Your task to perform on an android device: turn on improve location accuracy Image 0: 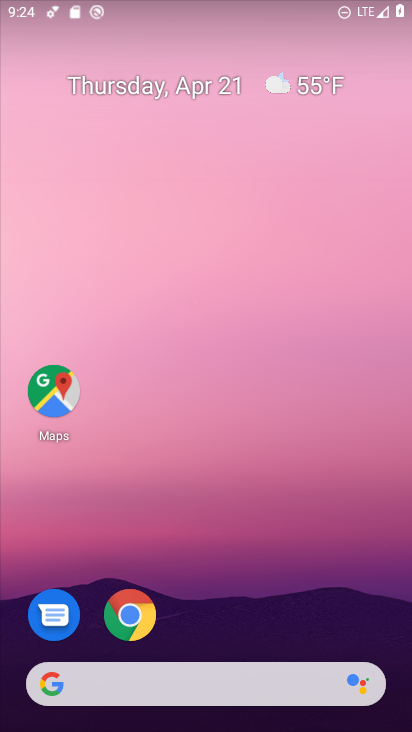
Step 0: drag from (280, 550) to (339, 22)
Your task to perform on an android device: turn on improve location accuracy Image 1: 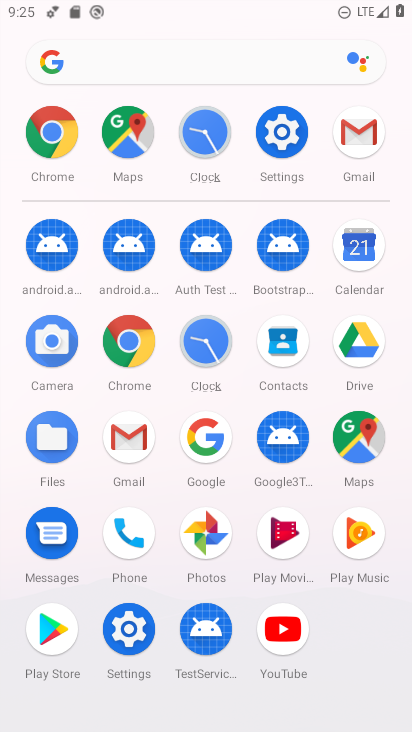
Step 1: click (288, 136)
Your task to perform on an android device: turn on improve location accuracy Image 2: 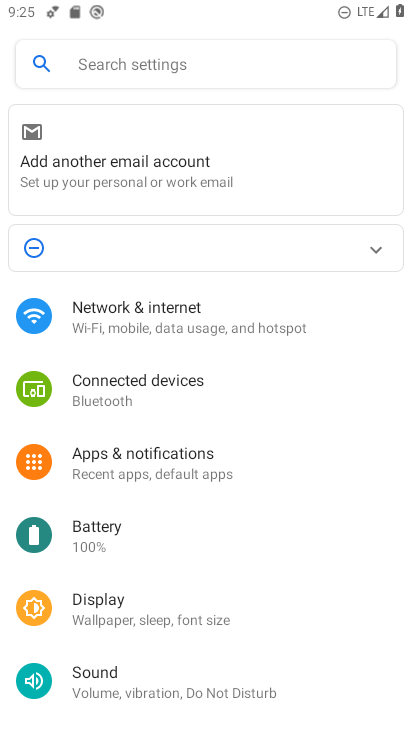
Step 2: drag from (238, 621) to (159, 201)
Your task to perform on an android device: turn on improve location accuracy Image 3: 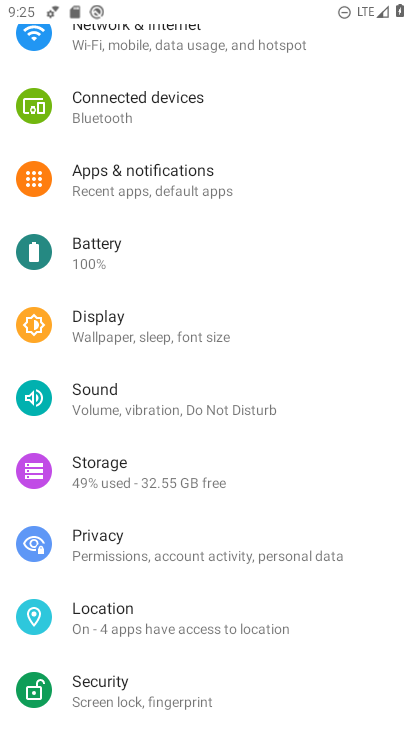
Step 3: drag from (180, 308) to (187, 205)
Your task to perform on an android device: turn on improve location accuracy Image 4: 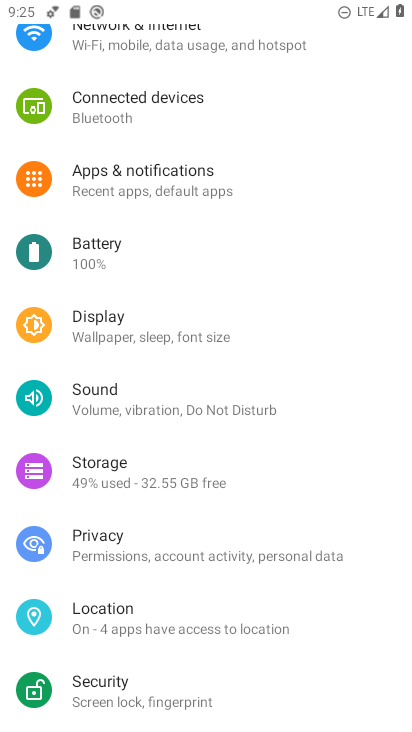
Step 4: drag from (225, 586) to (259, 246)
Your task to perform on an android device: turn on improve location accuracy Image 5: 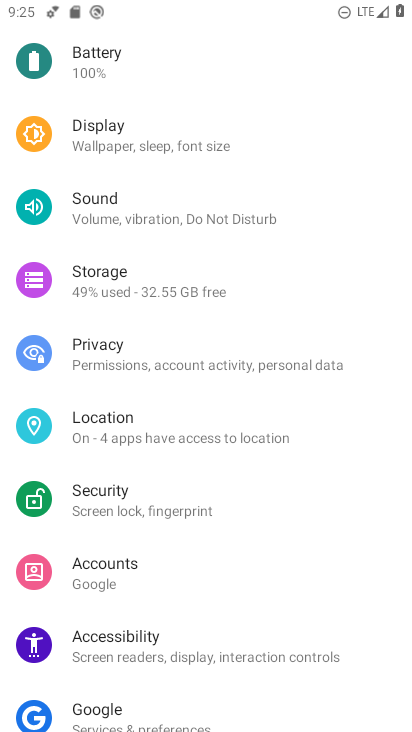
Step 5: click (130, 437)
Your task to perform on an android device: turn on improve location accuracy Image 6: 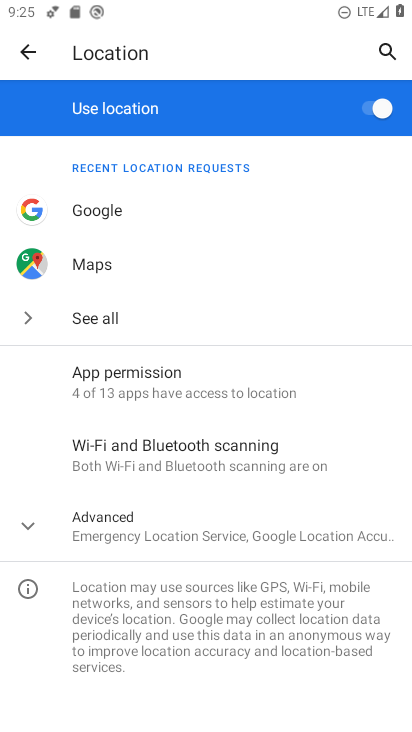
Step 6: drag from (246, 297) to (266, 577)
Your task to perform on an android device: turn on improve location accuracy Image 7: 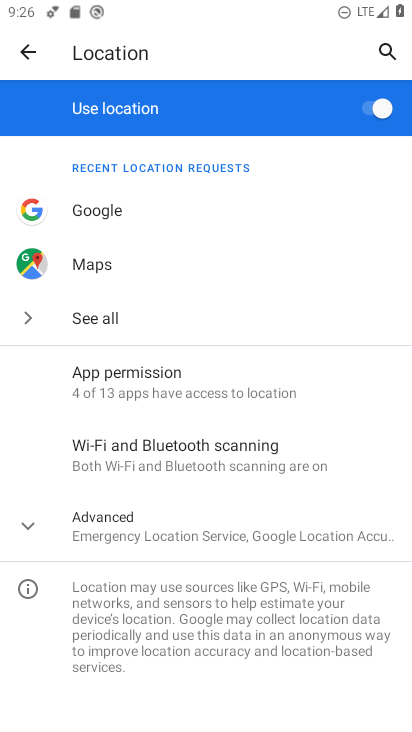
Step 7: drag from (278, 321) to (247, 629)
Your task to perform on an android device: turn on improve location accuracy Image 8: 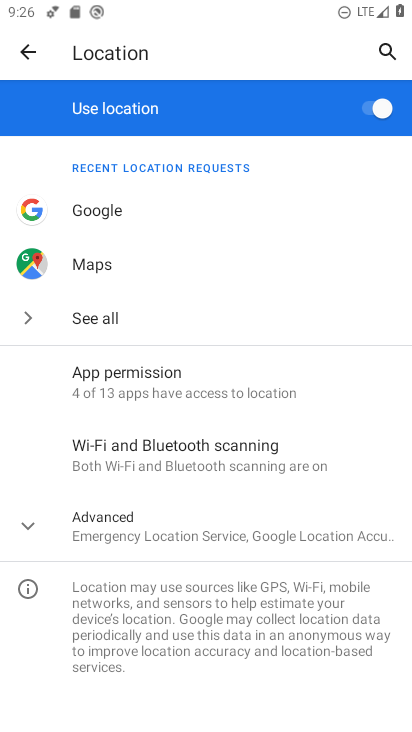
Step 8: click (189, 537)
Your task to perform on an android device: turn on improve location accuracy Image 9: 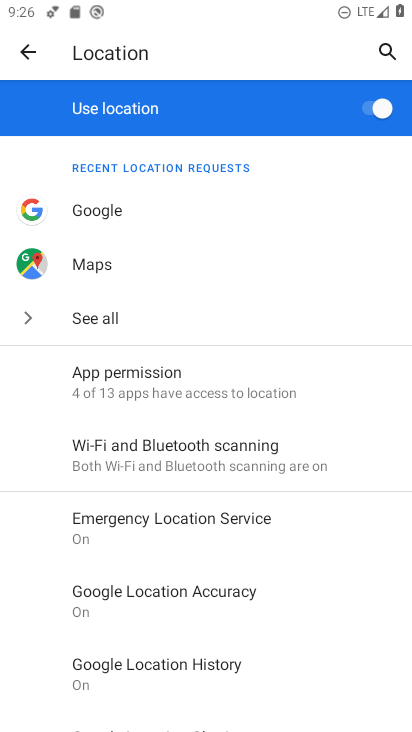
Step 9: drag from (235, 639) to (249, 249)
Your task to perform on an android device: turn on improve location accuracy Image 10: 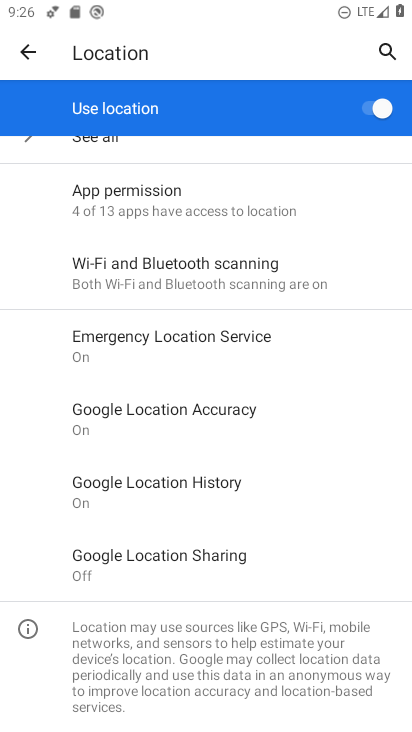
Step 10: click (200, 408)
Your task to perform on an android device: turn on improve location accuracy Image 11: 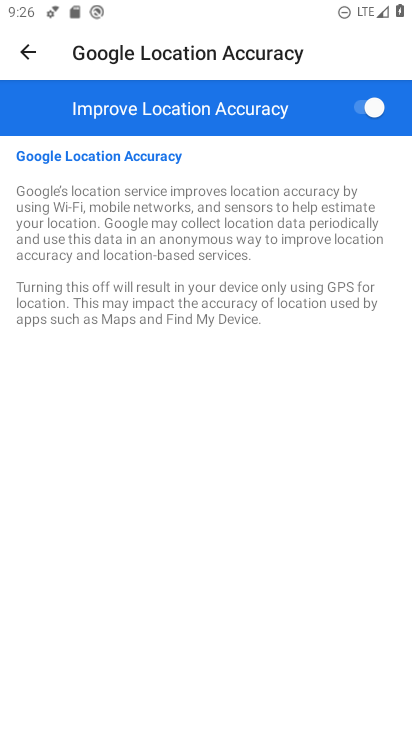
Step 11: task complete